Your task to perform on an android device: Open ESPN.com Image 0: 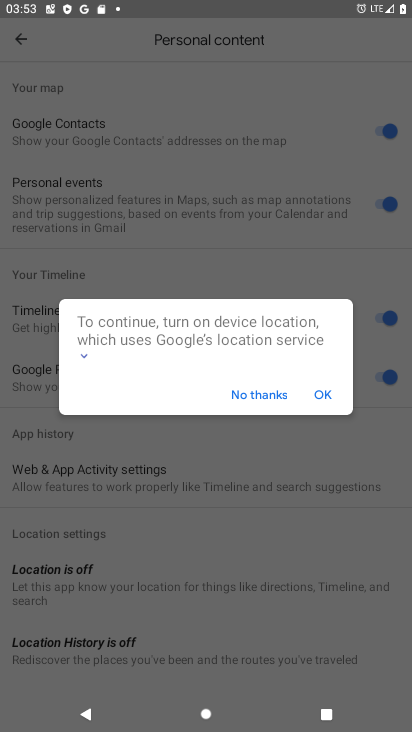
Step 0: press home button
Your task to perform on an android device: Open ESPN.com Image 1: 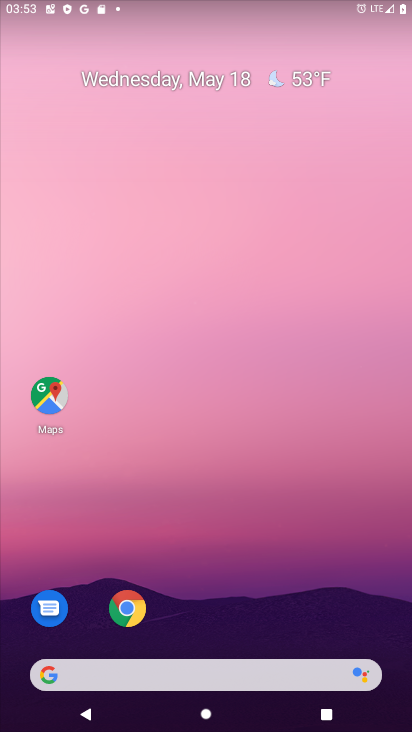
Step 1: click (128, 614)
Your task to perform on an android device: Open ESPN.com Image 2: 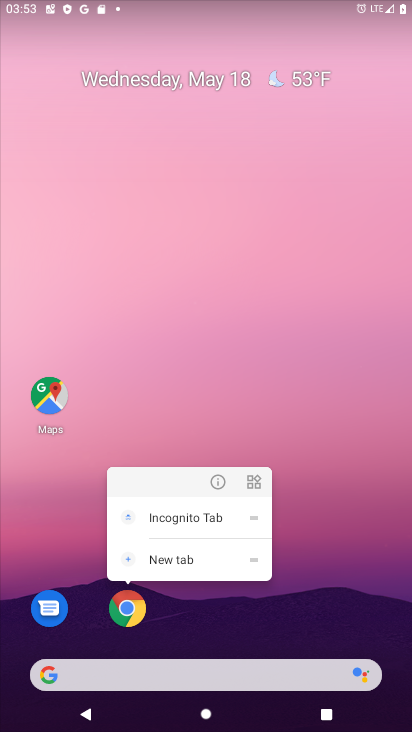
Step 2: click (133, 610)
Your task to perform on an android device: Open ESPN.com Image 3: 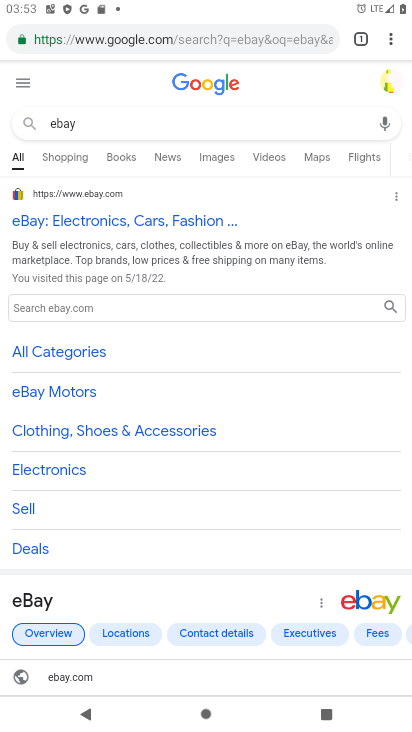
Step 3: click (127, 43)
Your task to perform on an android device: Open ESPN.com Image 4: 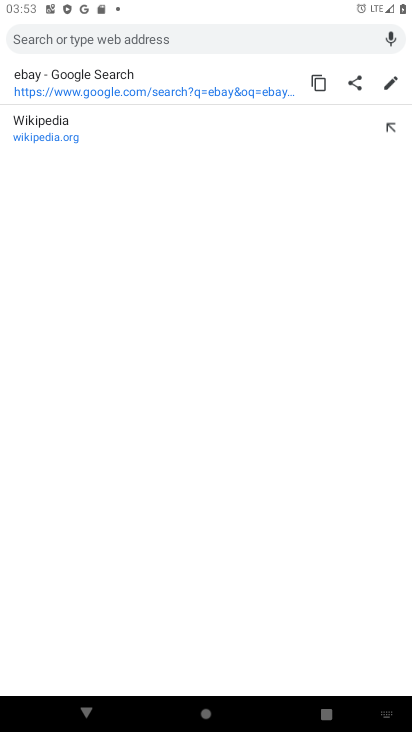
Step 4: type "espn.com"
Your task to perform on an android device: Open ESPN.com Image 5: 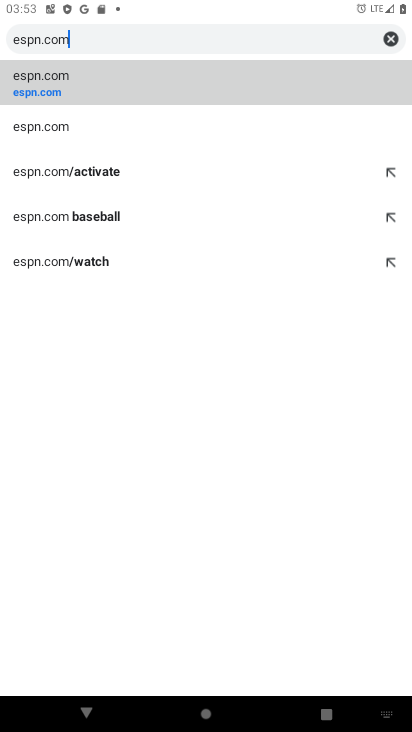
Step 5: click (32, 85)
Your task to perform on an android device: Open ESPN.com Image 6: 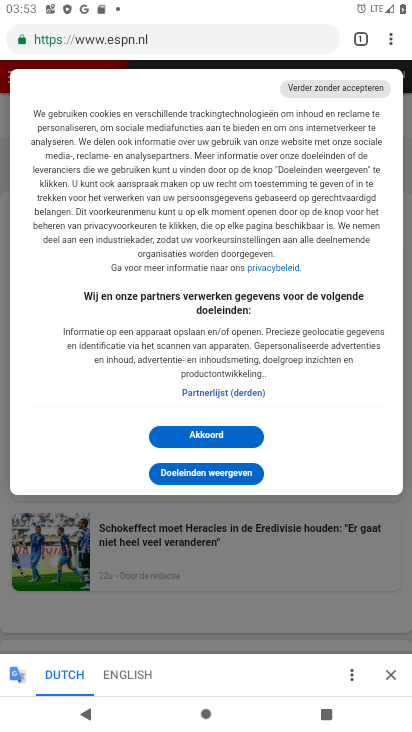
Step 6: task complete